Your task to perform on an android device: Search for hotels in Mexico city Image 0: 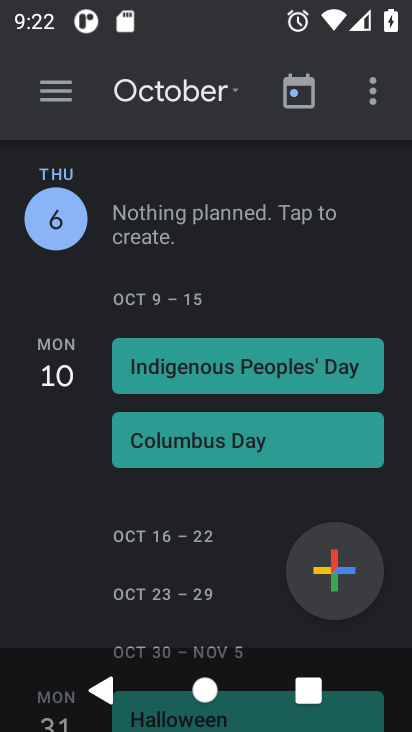
Step 0: press home button
Your task to perform on an android device: Search for hotels in Mexico city Image 1: 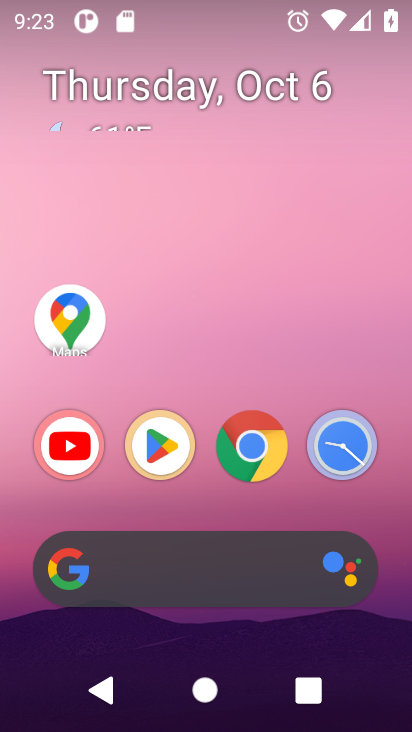
Step 1: click (228, 549)
Your task to perform on an android device: Search for hotels in Mexico city Image 2: 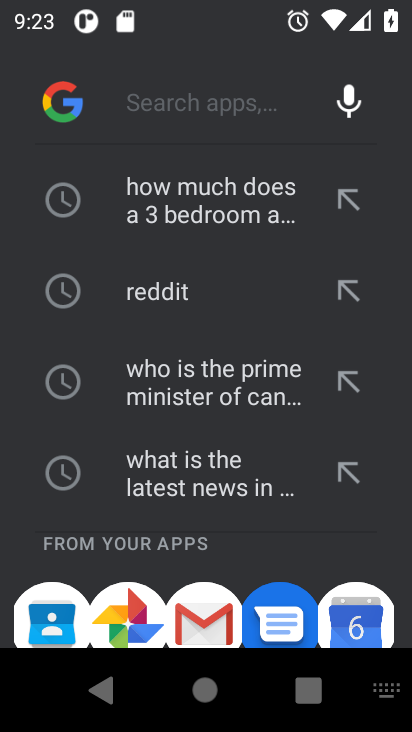
Step 2: type "Search for hotels in Mexico city"
Your task to perform on an android device: Search for hotels in Mexico city Image 3: 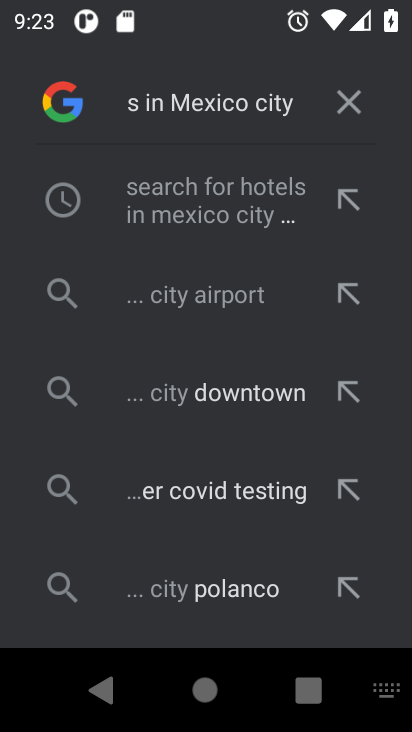
Step 3: click (210, 198)
Your task to perform on an android device: Search for hotels in Mexico city Image 4: 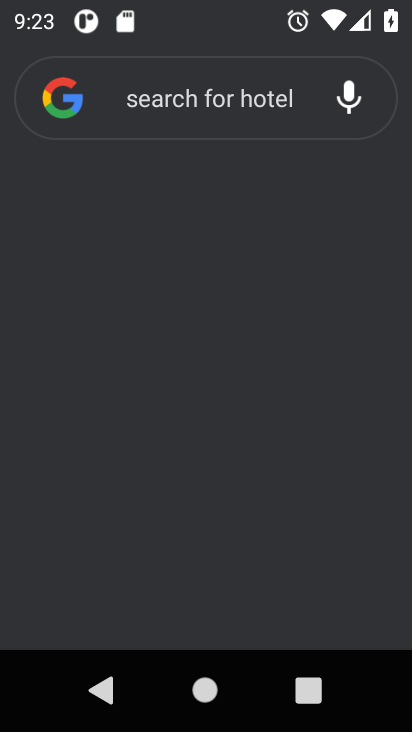
Step 4: task complete